Your task to perform on an android device: Set the phone to "Do not disturb". Image 0: 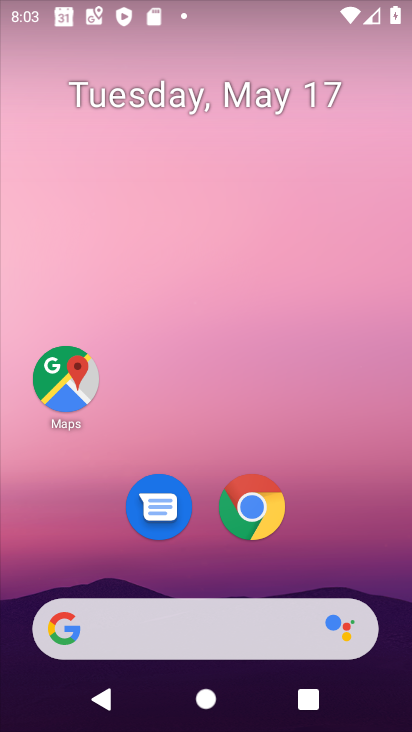
Step 0: drag from (392, 609) to (223, 719)
Your task to perform on an android device: Set the phone to "Do not disturb". Image 1: 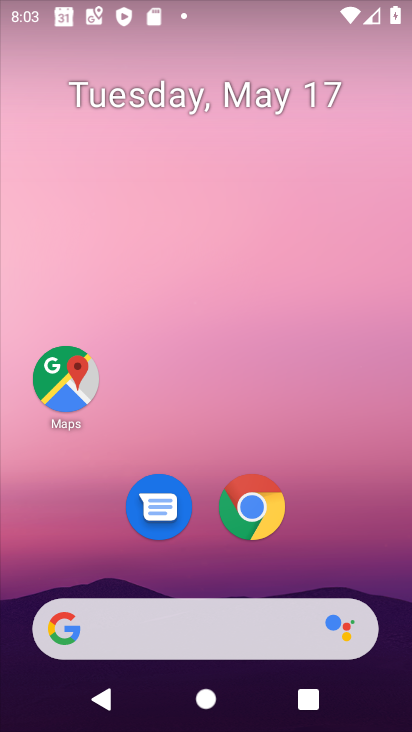
Step 1: drag from (404, 583) to (401, 532)
Your task to perform on an android device: Set the phone to "Do not disturb". Image 2: 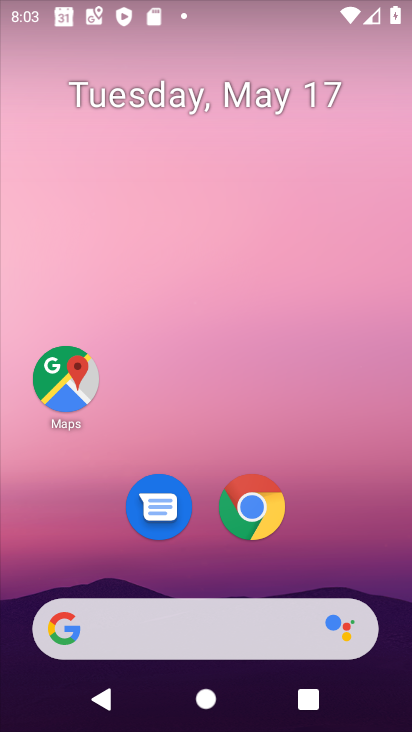
Step 2: drag from (384, 538) to (391, 3)
Your task to perform on an android device: Set the phone to "Do not disturb". Image 3: 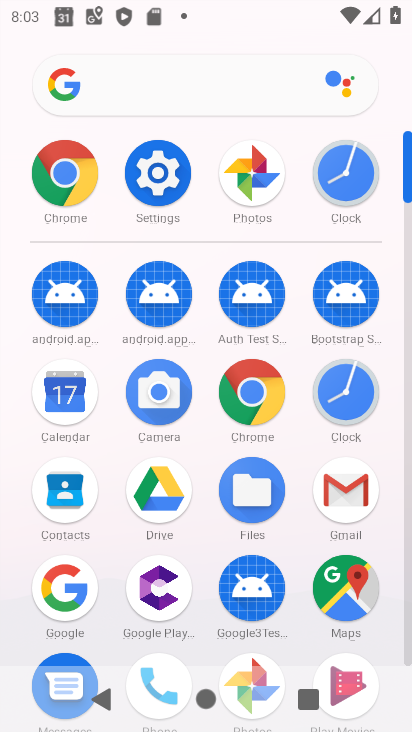
Step 3: click (154, 181)
Your task to perform on an android device: Set the phone to "Do not disturb". Image 4: 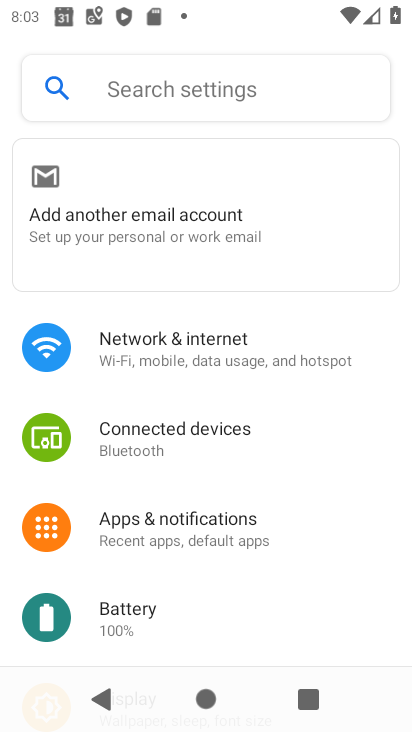
Step 4: drag from (227, 584) to (165, 16)
Your task to perform on an android device: Set the phone to "Do not disturb". Image 5: 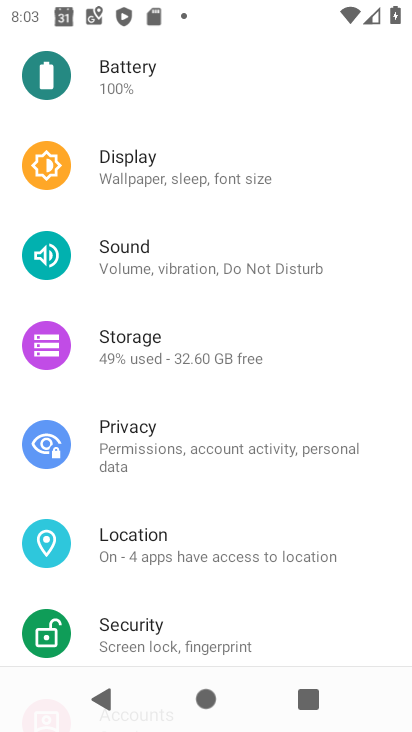
Step 5: click (108, 267)
Your task to perform on an android device: Set the phone to "Do not disturb". Image 6: 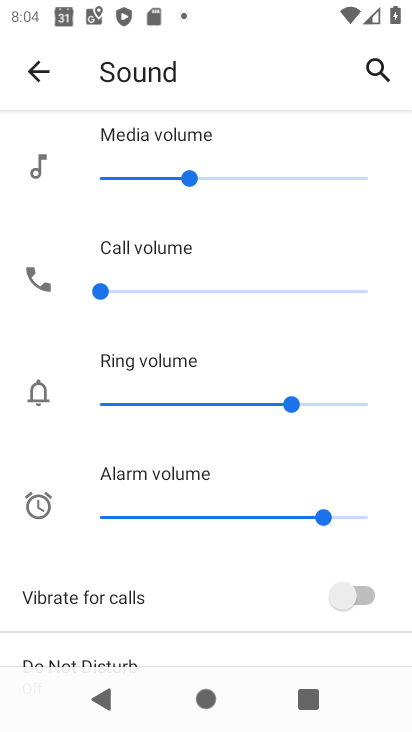
Step 6: drag from (211, 578) to (200, 74)
Your task to perform on an android device: Set the phone to "Do not disturb". Image 7: 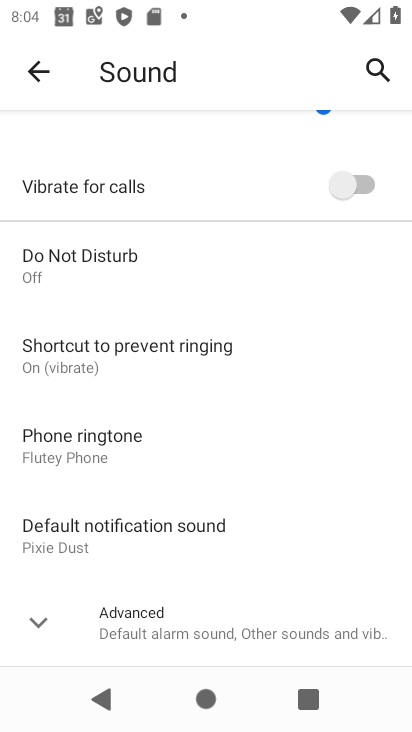
Step 7: click (61, 265)
Your task to perform on an android device: Set the phone to "Do not disturb". Image 8: 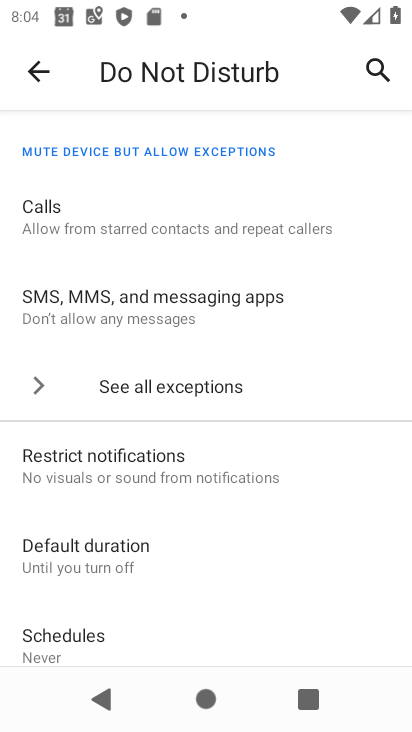
Step 8: drag from (177, 552) to (165, 171)
Your task to perform on an android device: Set the phone to "Do not disturb". Image 9: 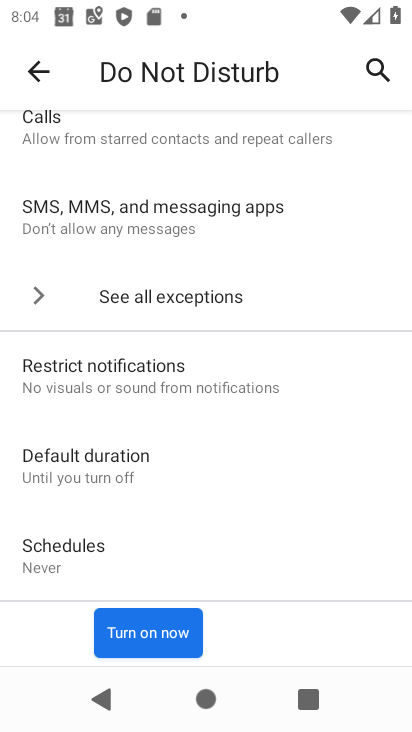
Step 9: click (143, 638)
Your task to perform on an android device: Set the phone to "Do not disturb". Image 10: 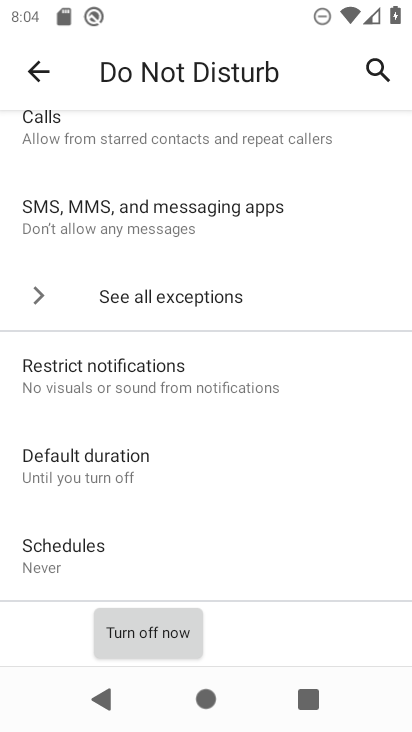
Step 10: task complete